Your task to perform on an android device: read, delete, or share a saved page in the chrome app Image 0: 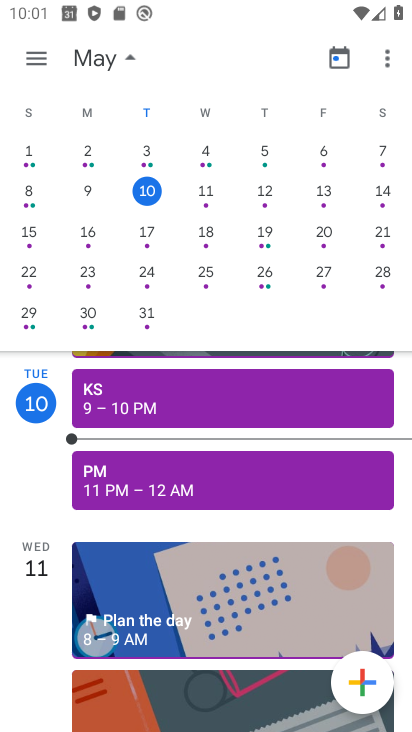
Step 0: press home button
Your task to perform on an android device: read, delete, or share a saved page in the chrome app Image 1: 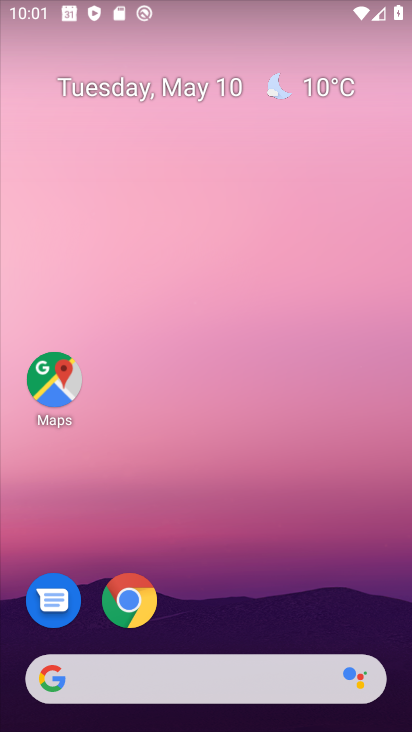
Step 1: drag from (295, 552) to (318, 34)
Your task to perform on an android device: read, delete, or share a saved page in the chrome app Image 2: 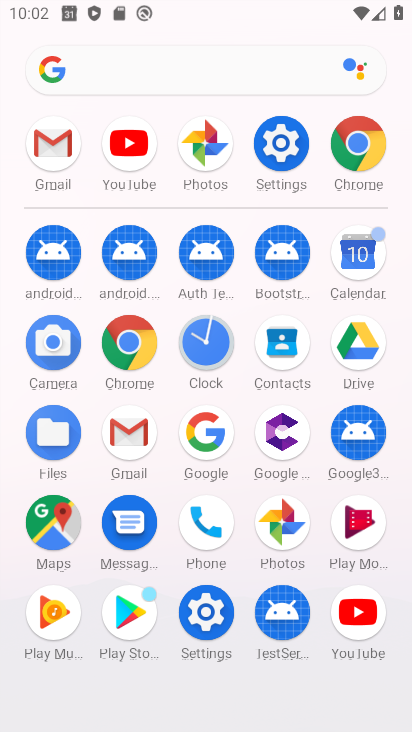
Step 2: click (366, 136)
Your task to perform on an android device: read, delete, or share a saved page in the chrome app Image 3: 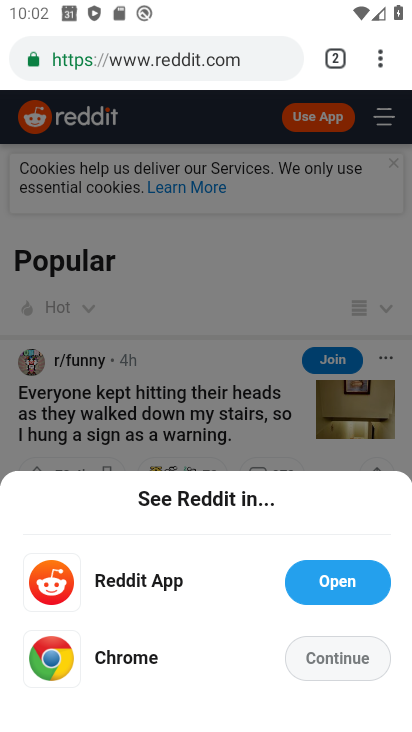
Step 3: task complete